Your task to perform on an android device: check storage Image 0: 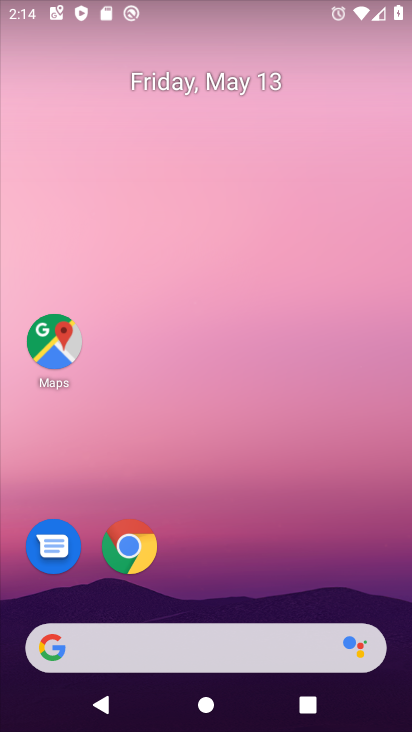
Step 0: drag from (225, 547) to (282, 152)
Your task to perform on an android device: check storage Image 1: 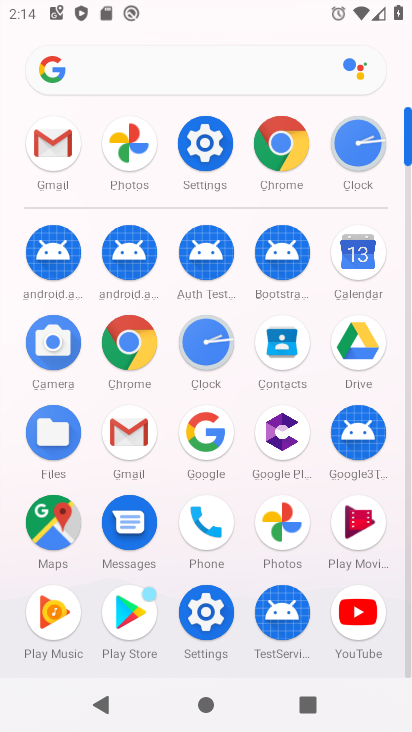
Step 1: click (200, 150)
Your task to perform on an android device: check storage Image 2: 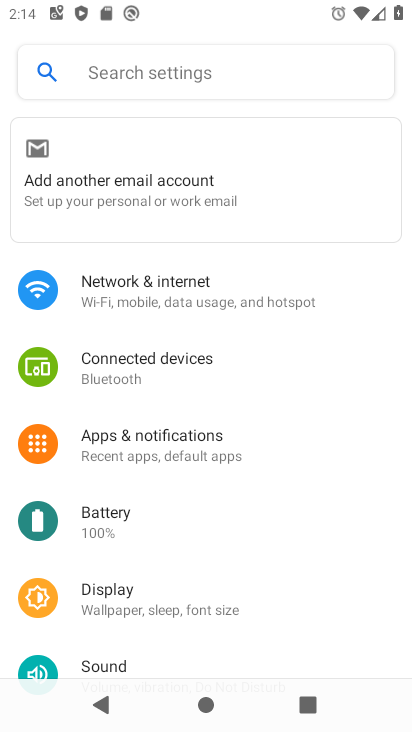
Step 2: drag from (219, 570) to (254, 409)
Your task to perform on an android device: check storage Image 3: 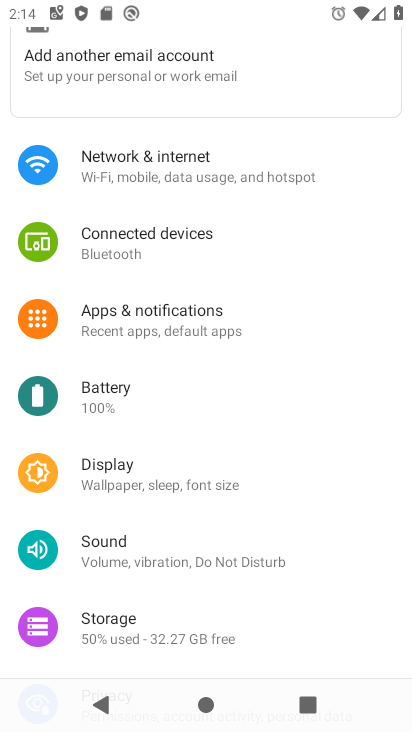
Step 3: drag from (297, 557) to (309, 401)
Your task to perform on an android device: check storage Image 4: 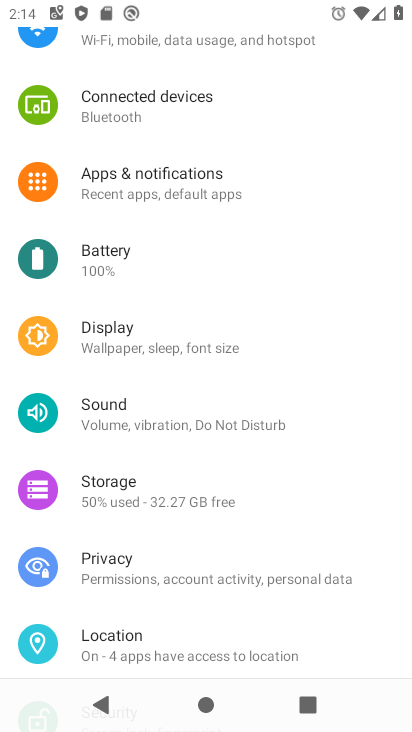
Step 4: click (181, 439)
Your task to perform on an android device: check storage Image 5: 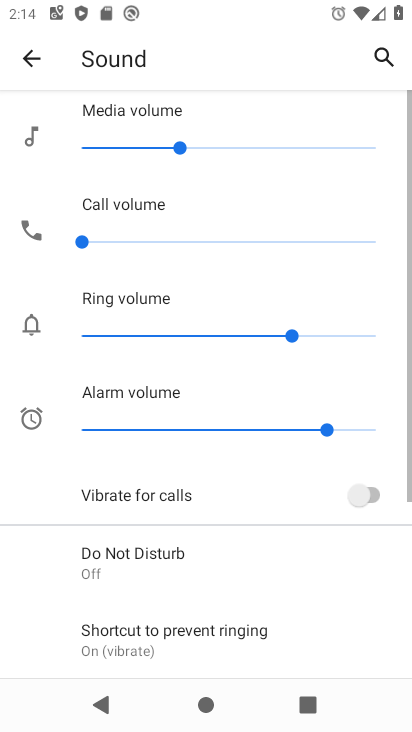
Step 5: click (38, 59)
Your task to perform on an android device: check storage Image 6: 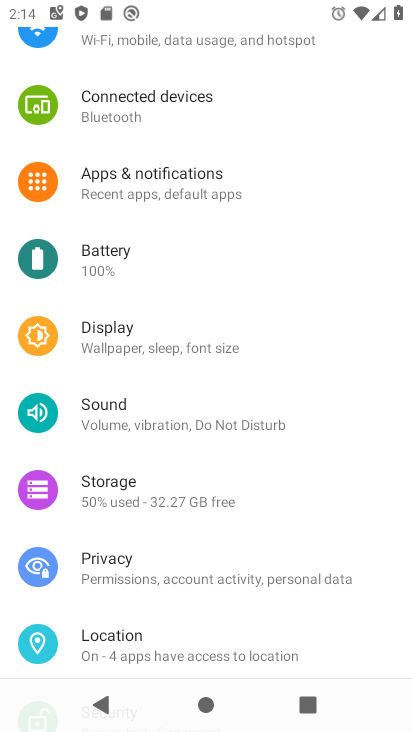
Step 6: click (155, 505)
Your task to perform on an android device: check storage Image 7: 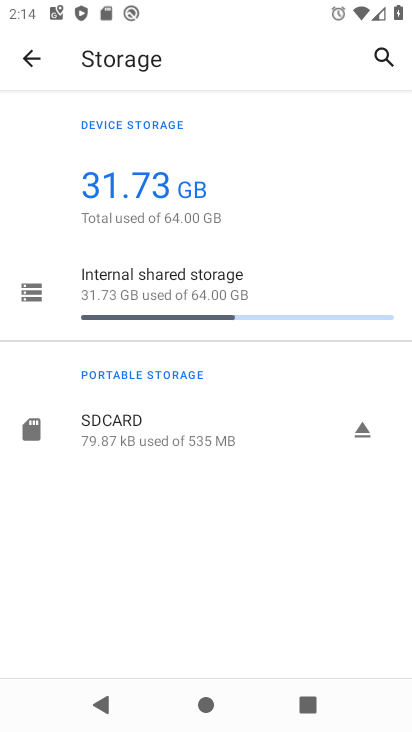
Step 7: task complete